Your task to perform on an android device: Go to battery settings Image 0: 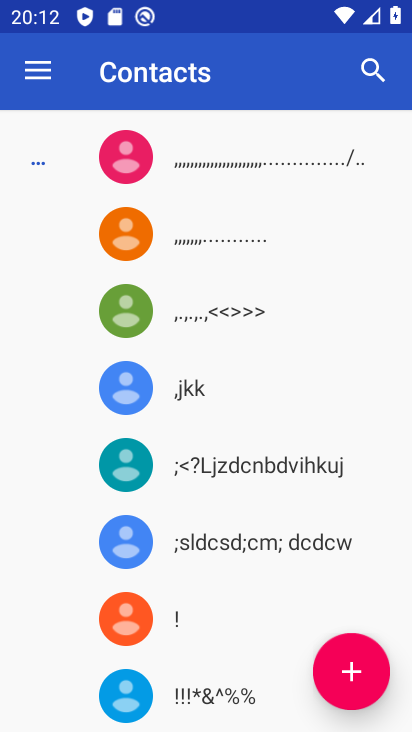
Step 0: press home button
Your task to perform on an android device: Go to battery settings Image 1: 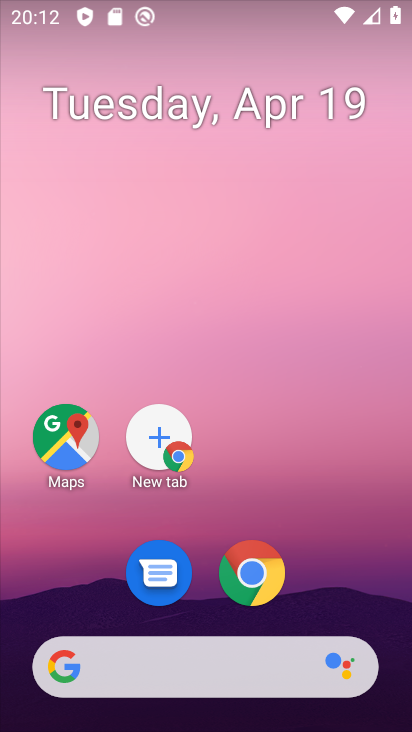
Step 1: drag from (375, 608) to (337, 66)
Your task to perform on an android device: Go to battery settings Image 2: 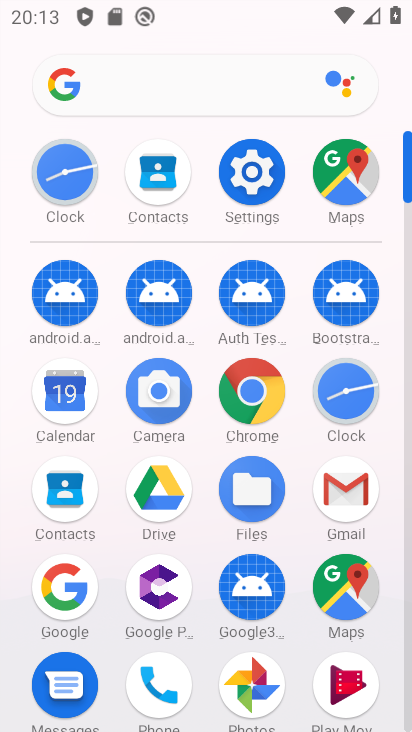
Step 2: click (242, 181)
Your task to perform on an android device: Go to battery settings Image 3: 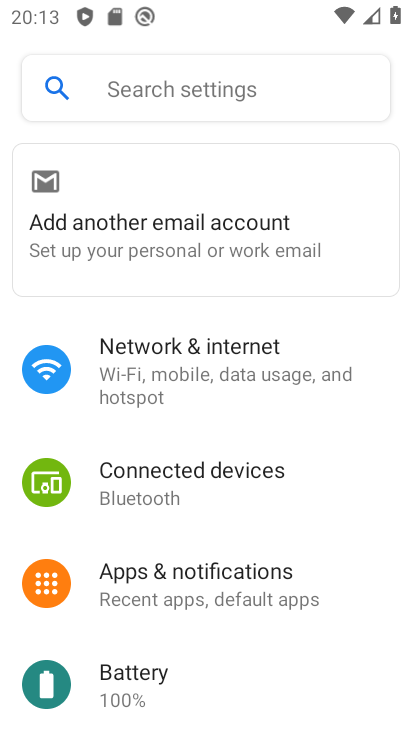
Step 3: click (120, 687)
Your task to perform on an android device: Go to battery settings Image 4: 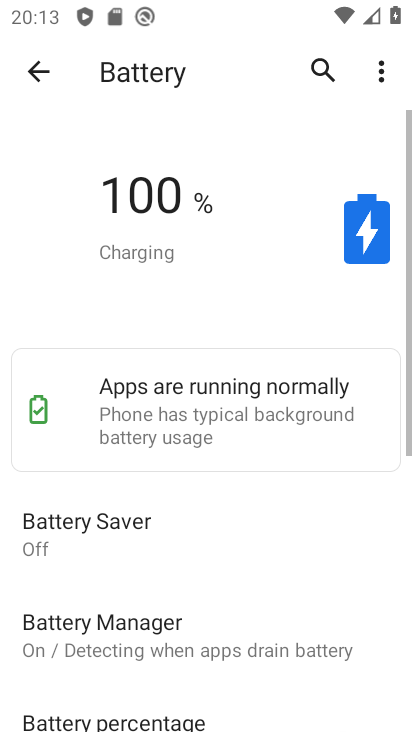
Step 4: drag from (276, 489) to (268, 236)
Your task to perform on an android device: Go to battery settings Image 5: 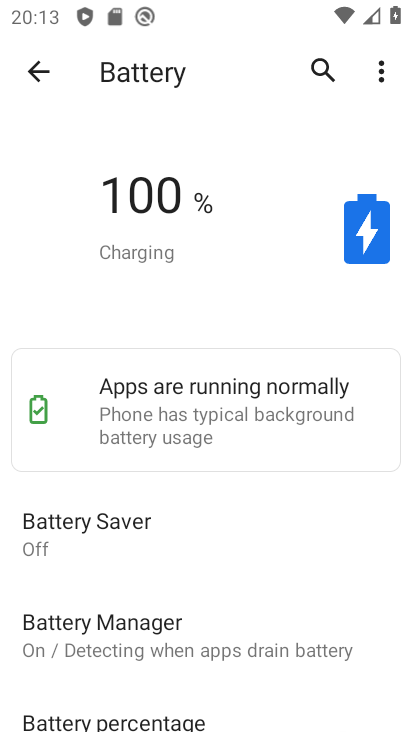
Step 5: drag from (322, 641) to (303, 200)
Your task to perform on an android device: Go to battery settings Image 6: 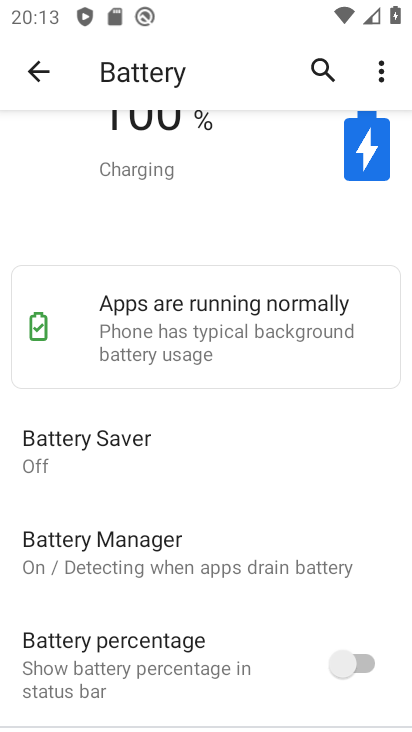
Step 6: drag from (252, 414) to (260, 115)
Your task to perform on an android device: Go to battery settings Image 7: 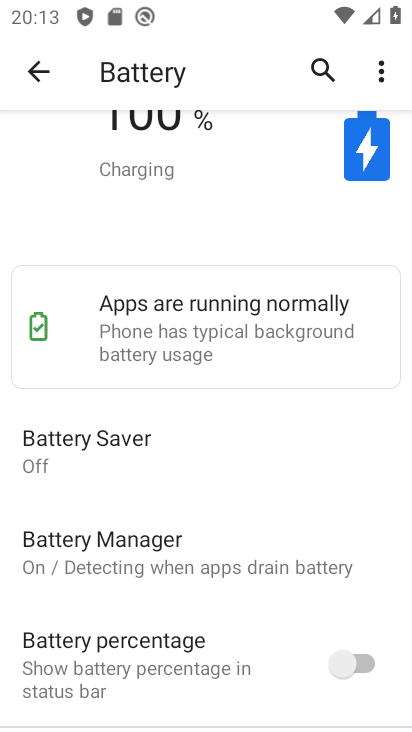
Step 7: click (276, 184)
Your task to perform on an android device: Go to battery settings Image 8: 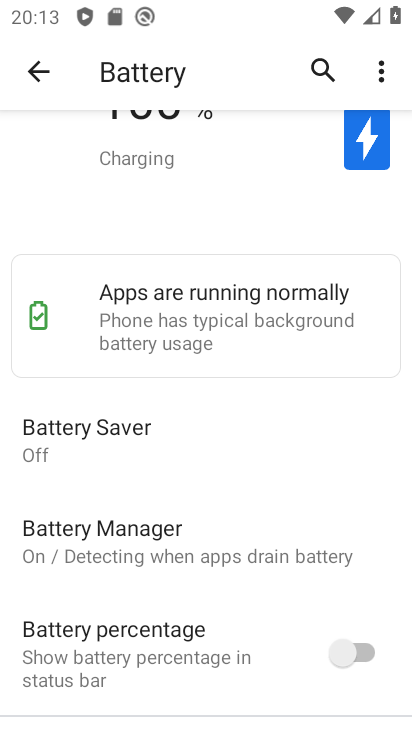
Step 8: task complete